Your task to perform on an android device: turn on notifications settings in the gmail app Image 0: 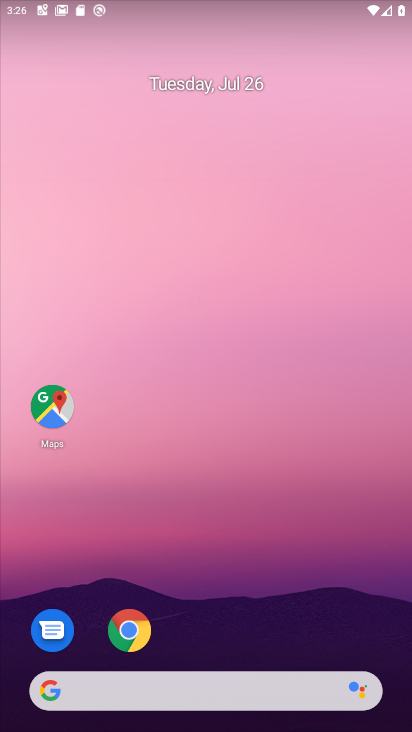
Step 0: drag from (168, 650) to (296, 9)
Your task to perform on an android device: turn on notifications settings in the gmail app Image 1: 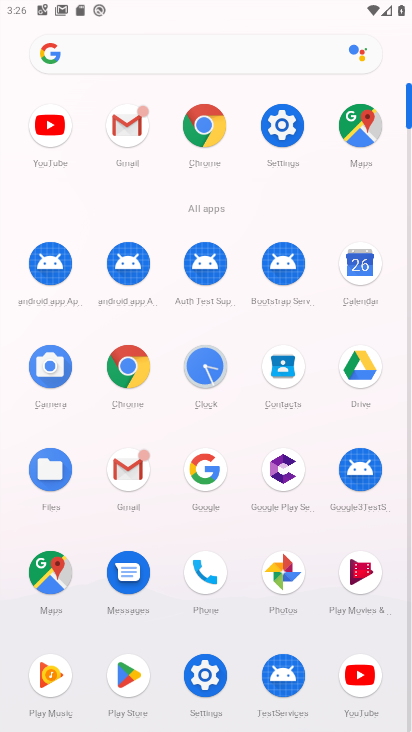
Step 1: click (120, 137)
Your task to perform on an android device: turn on notifications settings in the gmail app Image 2: 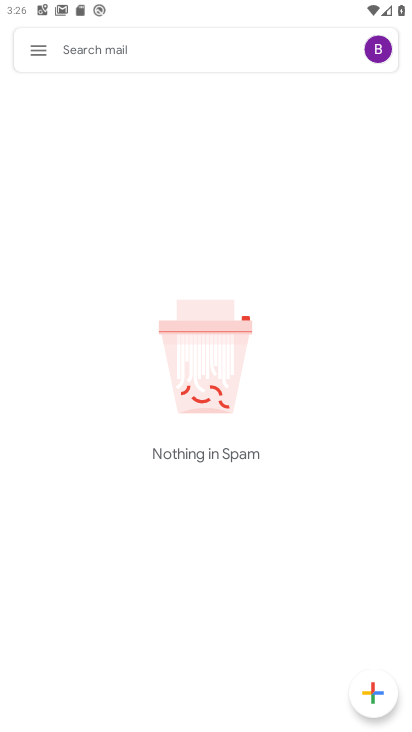
Step 2: click (46, 43)
Your task to perform on an android device: turn on notifications settings in the gmail app Image 3: 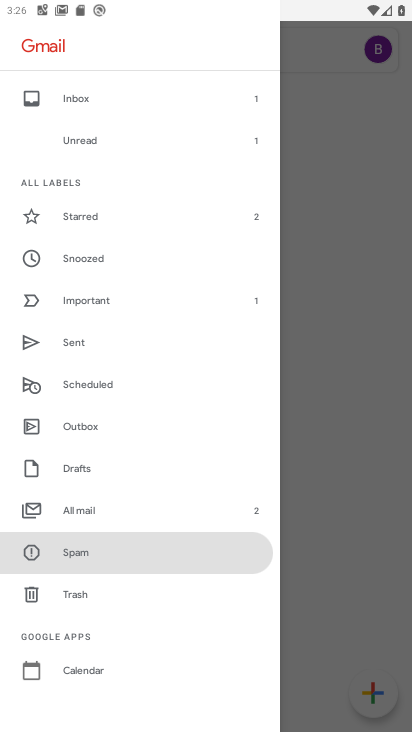
Step 3: drag from (107, 669) to (86, 258)
Your task to perform on an android device: turn on notifications settings in the gmail app Image 4: 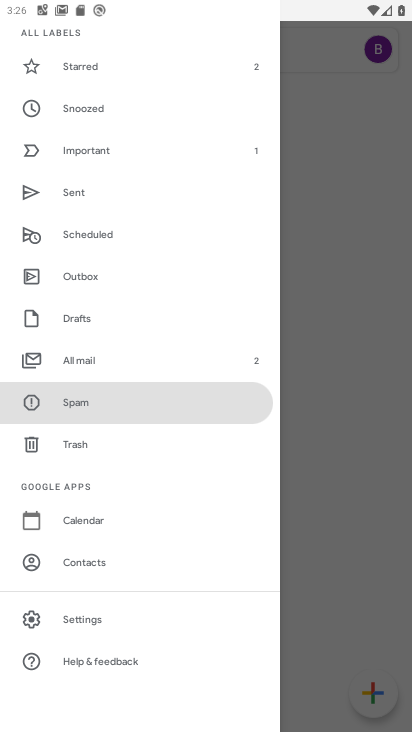
Step 4: click (91, 610)
Your task to perform on an android device: turn on notifications settings in the gmail app Image 5: 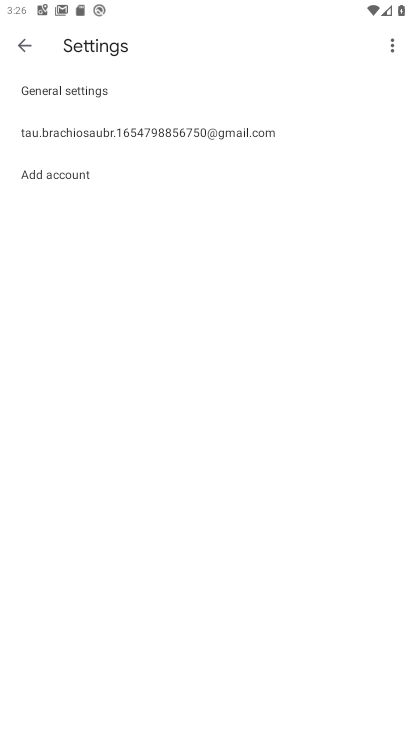
Step 5: click (312, 143)
Your task to perform on an android device: turn on notifications settings in the gmail app Image 6: 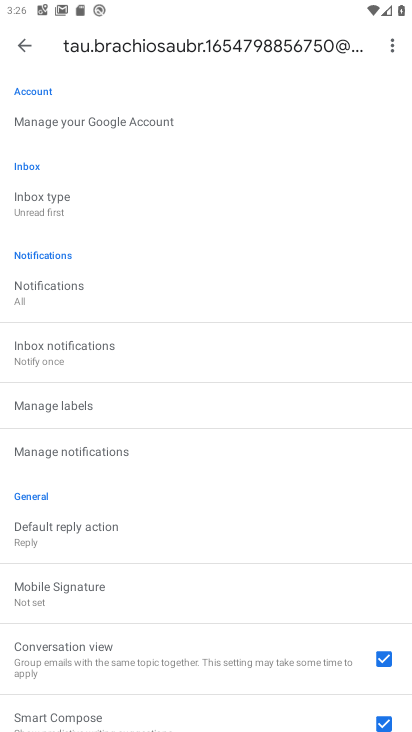
Step 6: click (70, 303)
Your task to perform on an android device: turn on notifications settings in the gmail app Image 7: 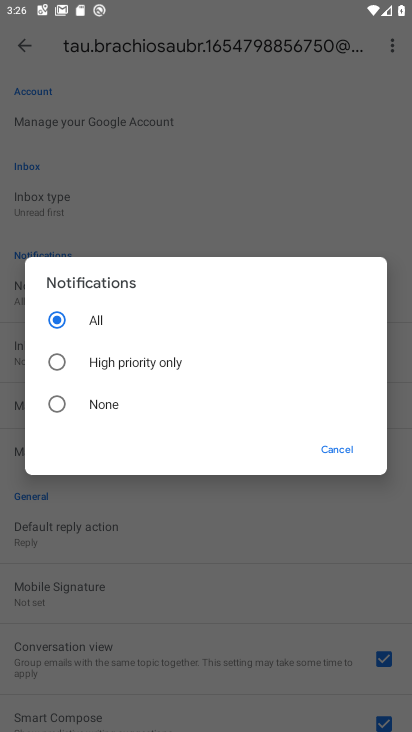
Step 7: click (107, 365)
Your task to perform on an android device: turn on notifications settings in the gmail app Image 8: 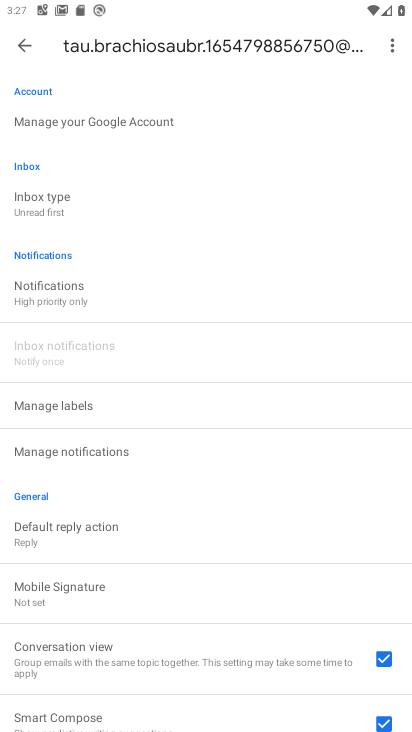
Step 8: task complete